Your task to perform on an android device: turn notification dots off Image 0: 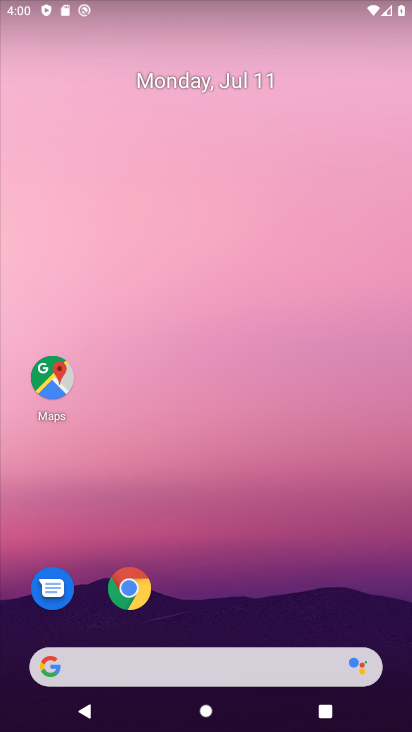
Step 0: drag from (276, 706) to (219, 7)
Your task to perform on an android device: turn notification dots off Image 1: 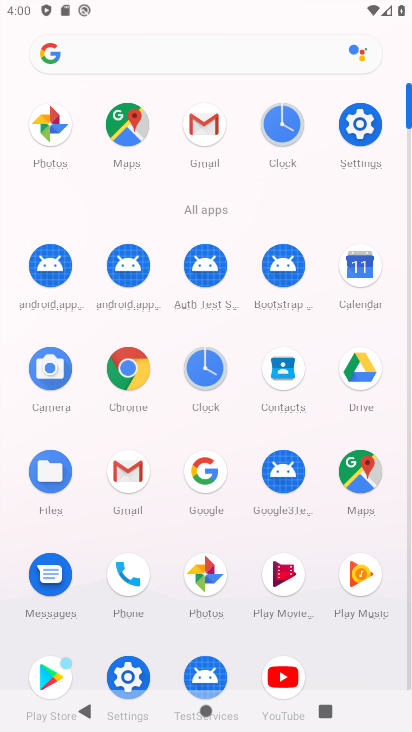
Step 1: click (369, 132)
Your task to perform on an android device: turn notification dots off Image 2: 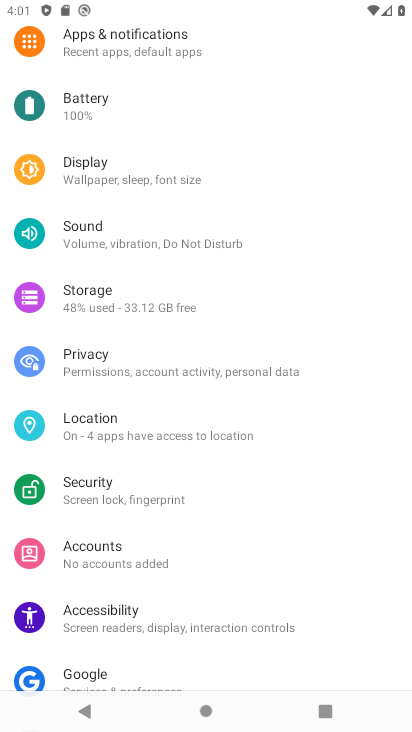
Step 2: click (201, 40)
Your task to perform on an android device: turn notification dots off Image 3: 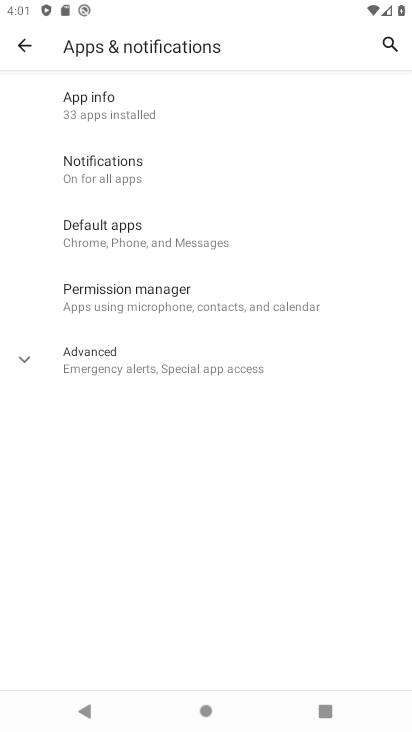
Step 3: click (144, 159)
Your task to perform on an android device: turn notification dots off Image 4: 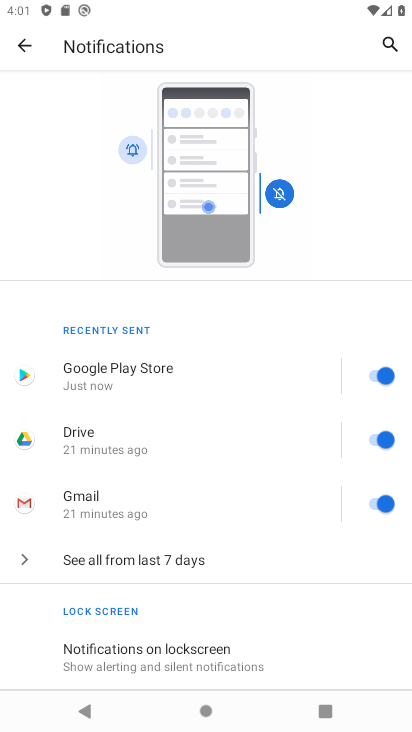
Step 4: drag from (266, 609) to (203, 134)
Your task to perform on an android device: turn notification dots off Image 5: 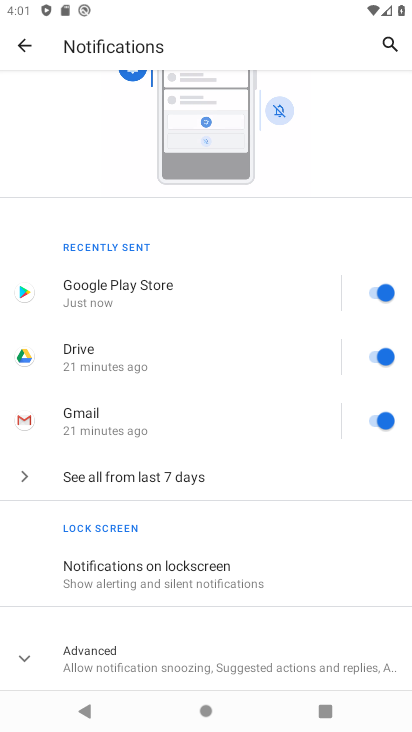
Step 5: click (263, 658)
Your task to perform on an android device: turn notification dots off Image 6: 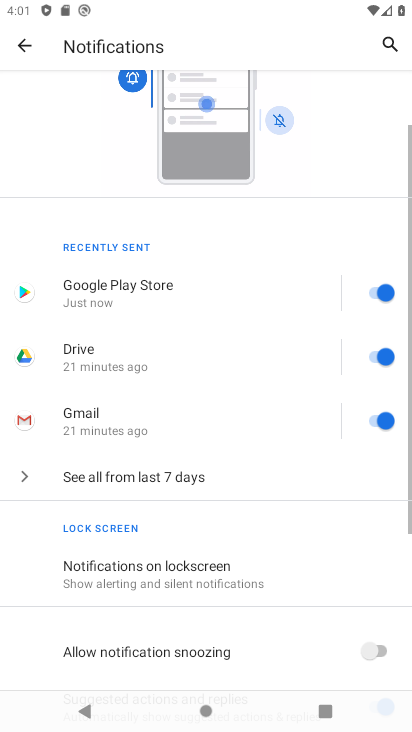
Step 6: drag from (250, 609) to (219, 121)
Your task to perform on an android device: turn notification dots off Image 7: 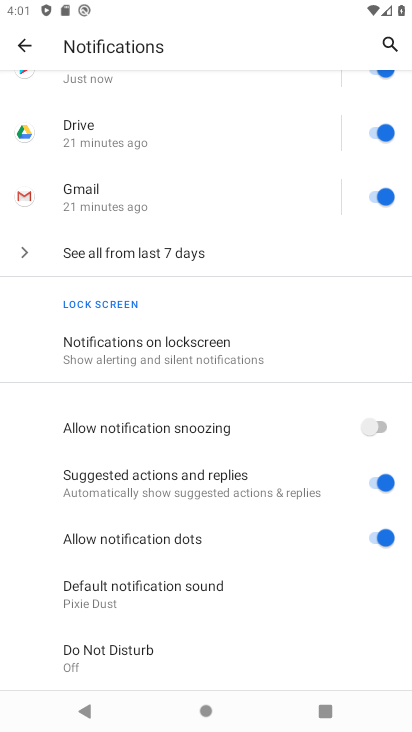
Step 7: click (386, 534)
Your task to perform on an android device: turn notification dots off Image 8: 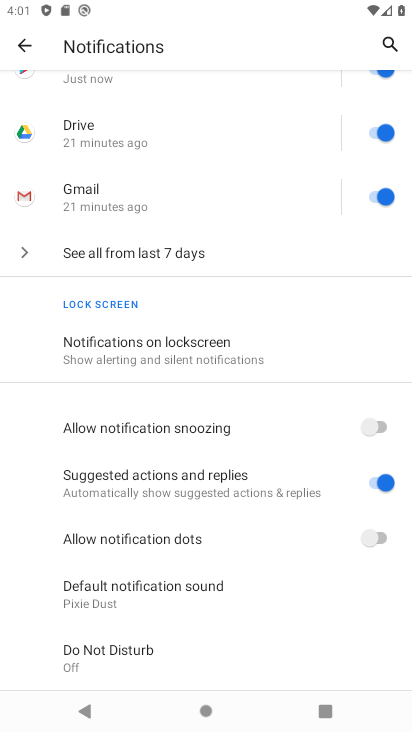
Step 8: task complete